Your task to perform on an android device: Add "bose soundsport free" to the cart on ebay, then select checkout. Image 0: 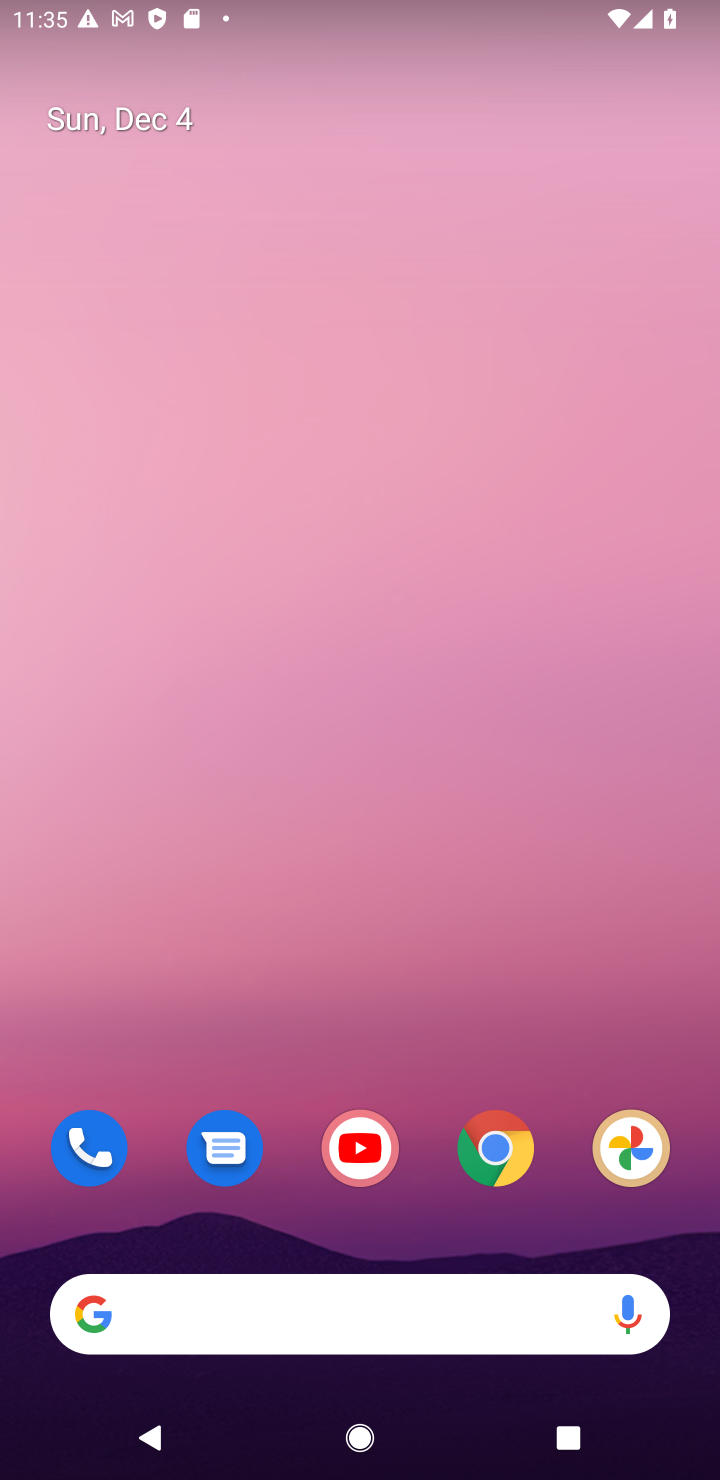
Step 0: drag from (414, 1185) to (417, 581)
Your task to perform on an android device: Add "bose soundsport free" to the cart on ebay, then select checkout. Image 1: 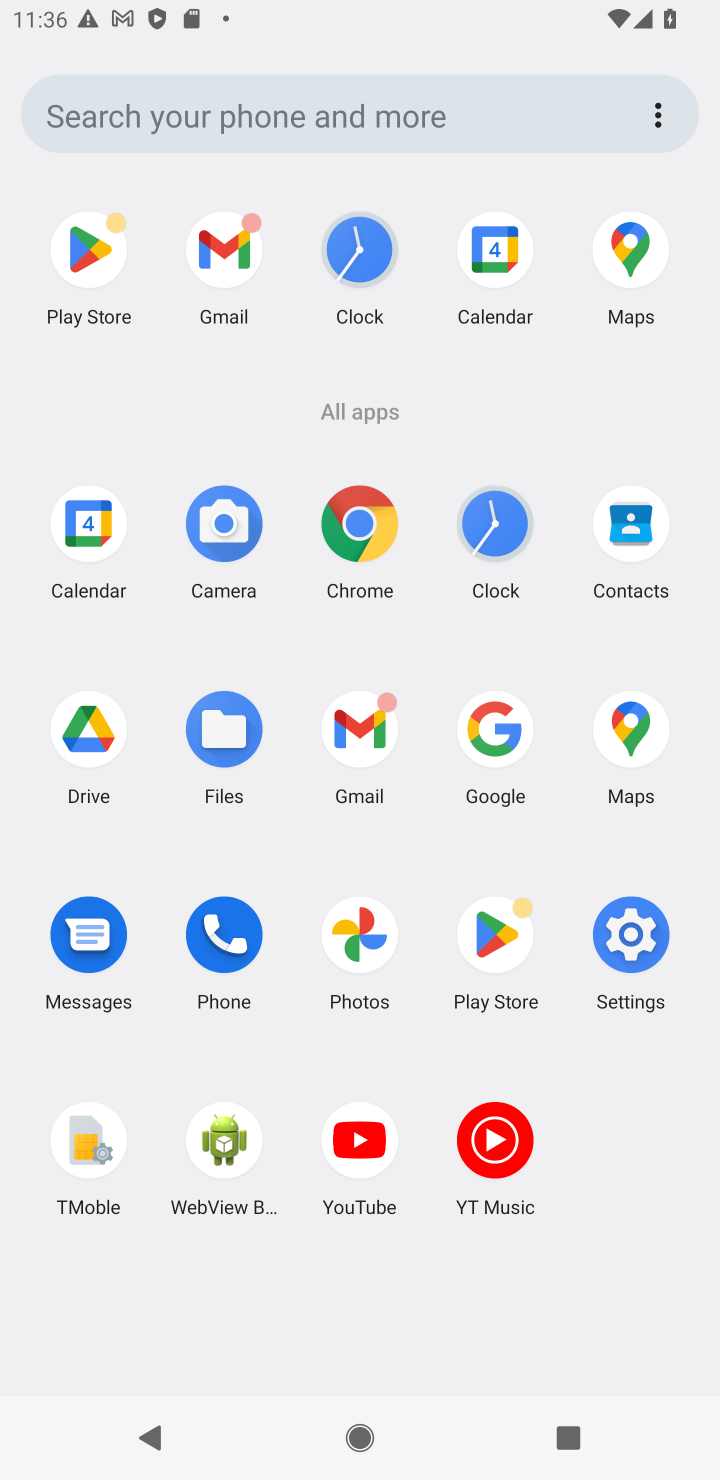
Step 1: click (501, 733)
Your task to perform on an android device: Add "bose soundsport free" to the cart on ebay, then select checkout. Image 2: 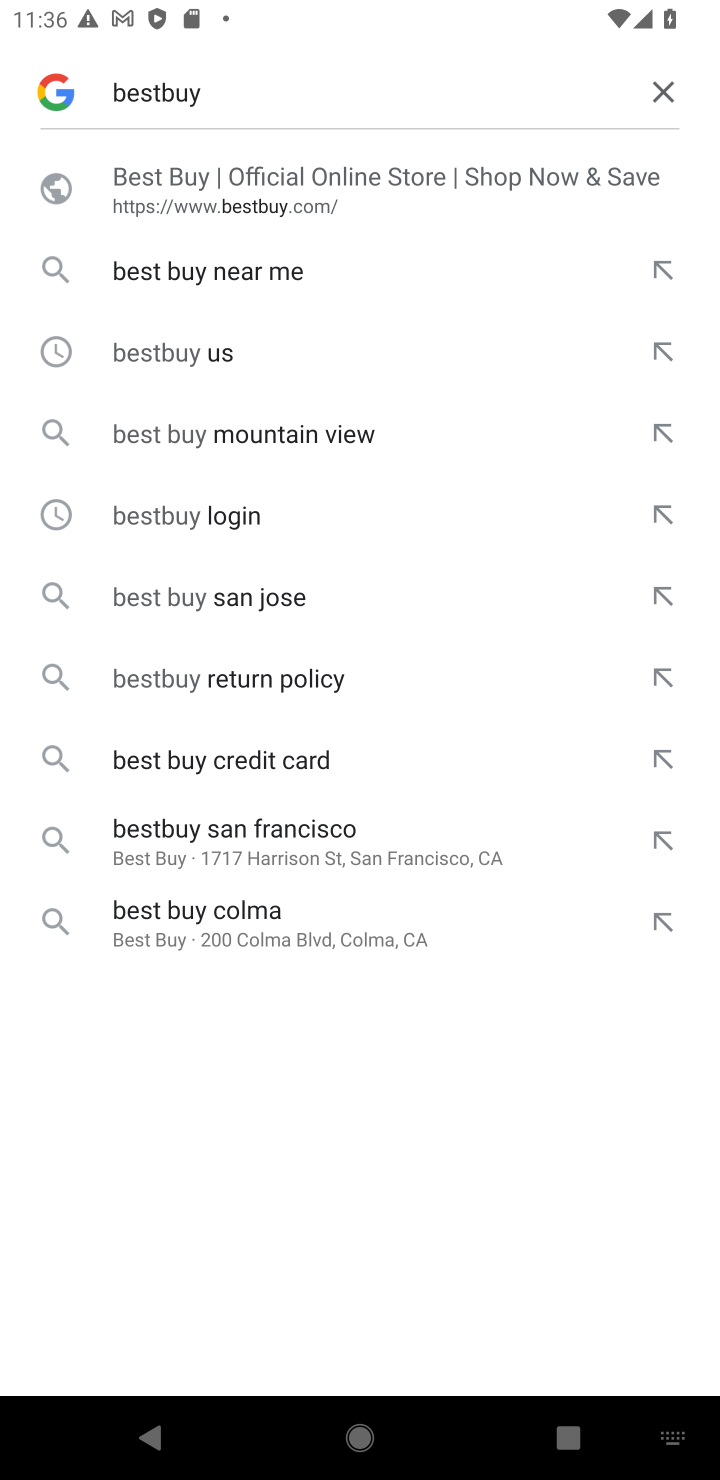
Step 2: click (169, 96)
Your task to perform on an android device: Add "bose soundsport free" to the cart on ebay, then select checkout. Image 3: 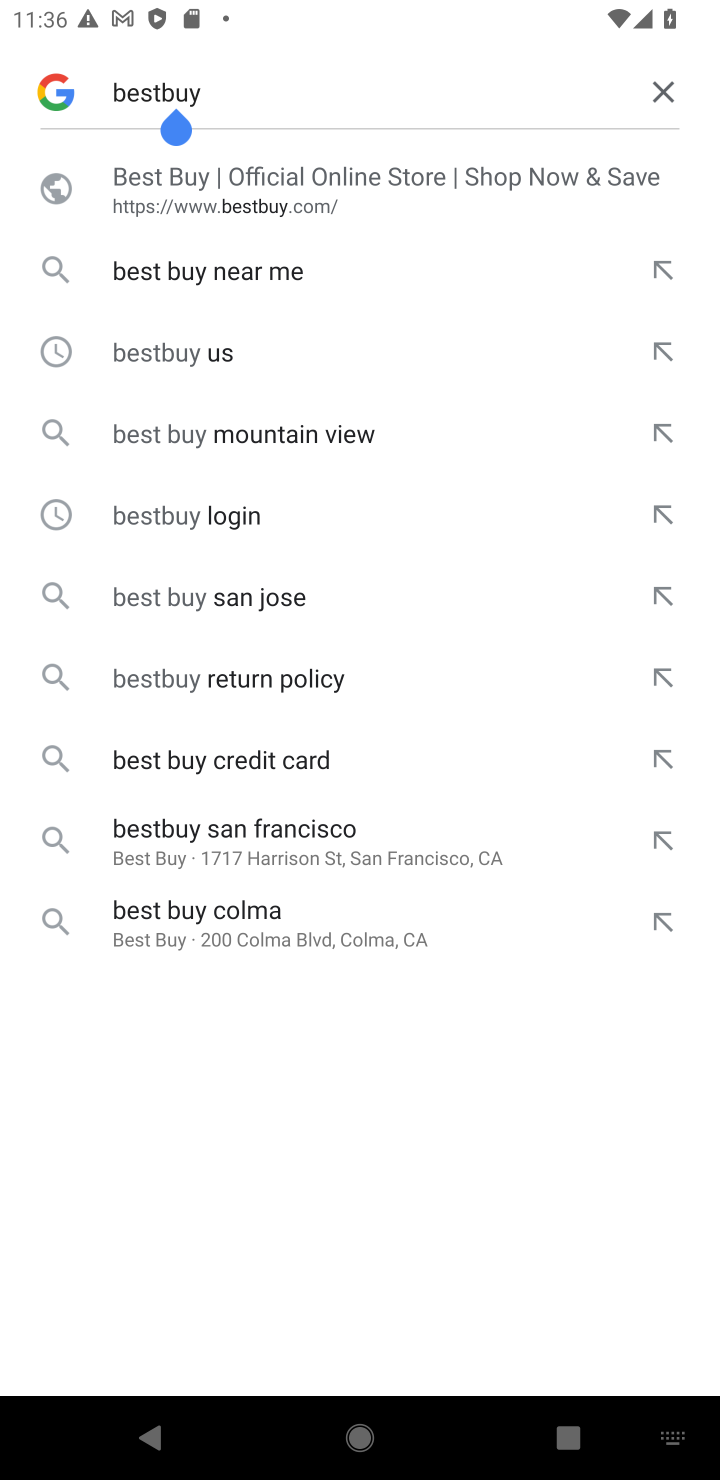
Step 3: click (662, 97)
Your task to perform on an android device: Add "bose soundsport free" to the cart on ebay, then select checkout. Image 4: 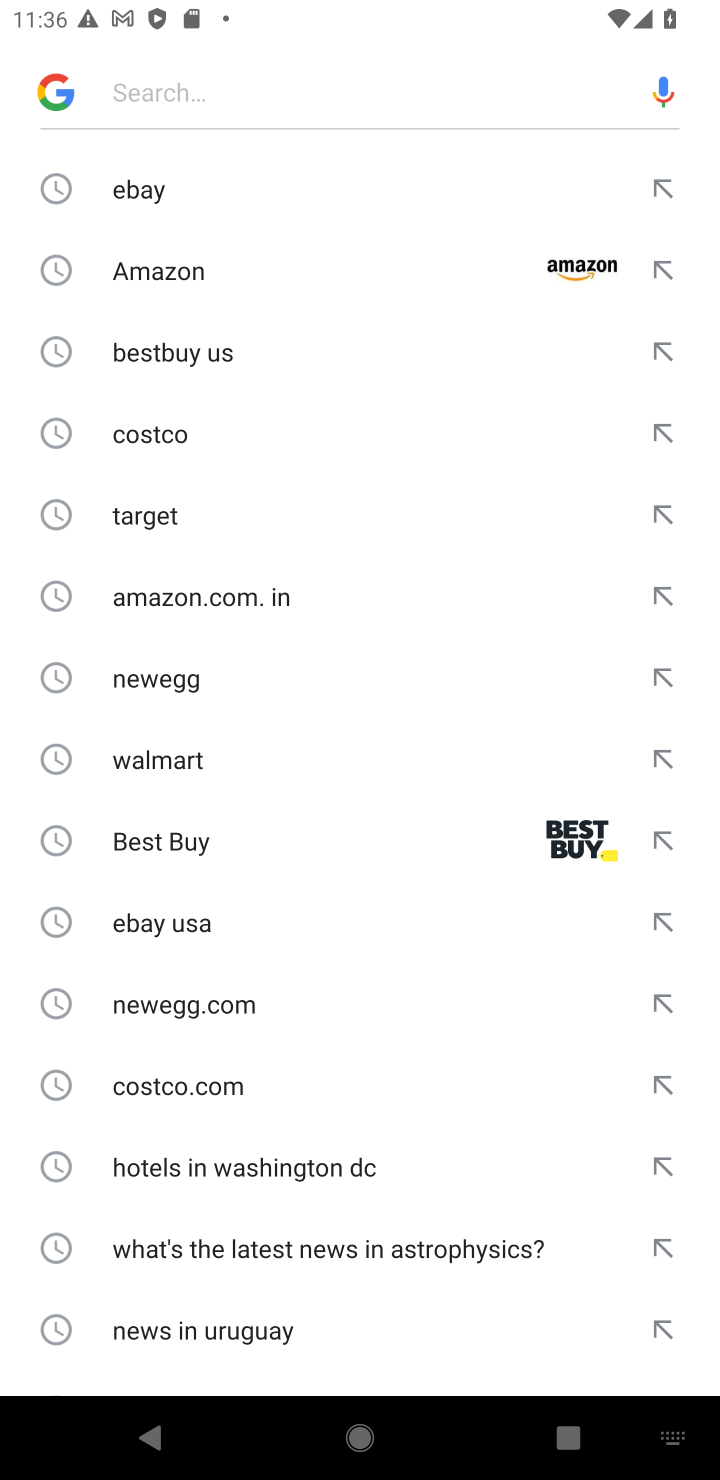
Step 4: click (149, 192)
Your task to perform on an android device: Add "bose soundsport free" to the cart on ebay, then select checkout. Image 5: 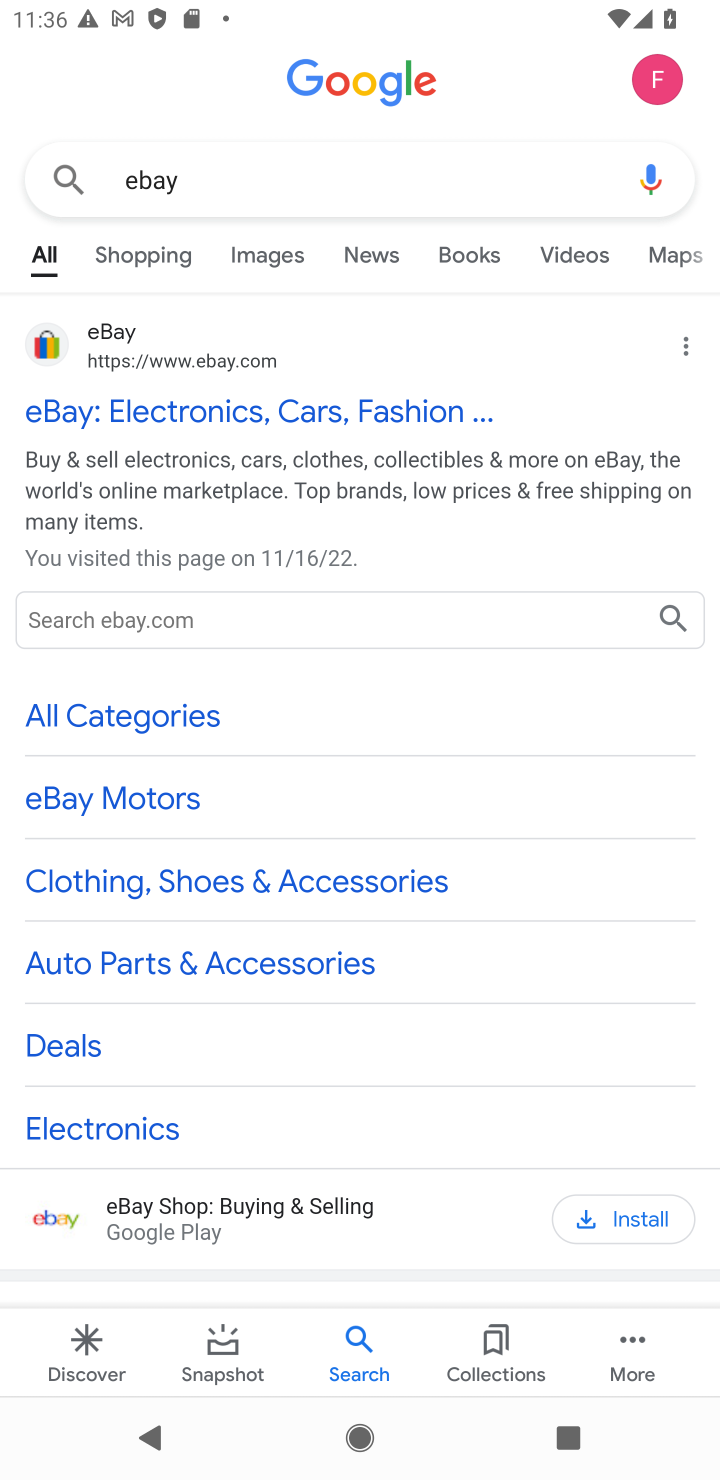
Step 5: click (225, 424)
Your task to perform on an android device: Add "bose soundsport free" to the cart on ebay, then select checkout. Image 6: 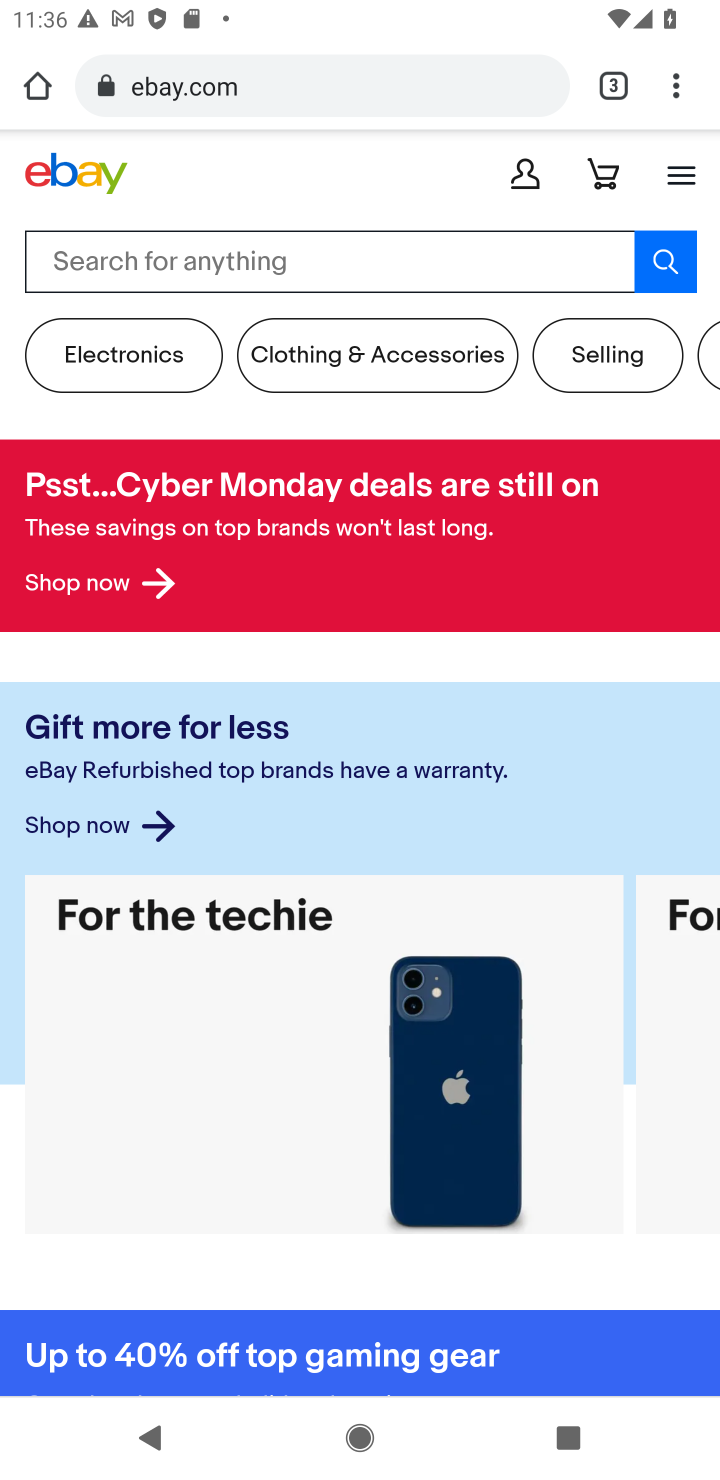
Step 6: click (250, 255)
Your task to perform on an android device: Add "bose soundsport free" to the cart on ebay, then select checkout. Image 7: 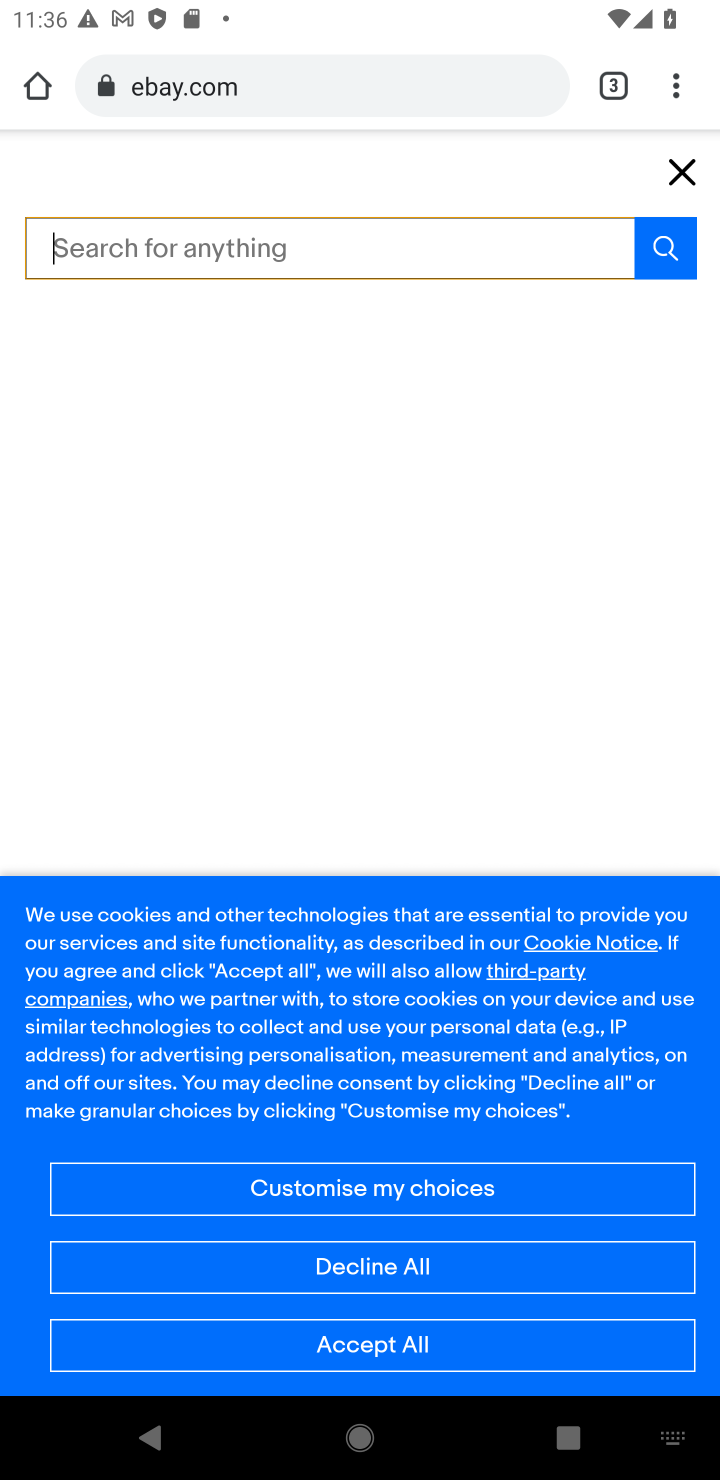
Step 7: type "bose soundsport free"
Your task to perform on an android device: Add "bose soundsport free" to the cart on ebay, then select checkout. Image 8: 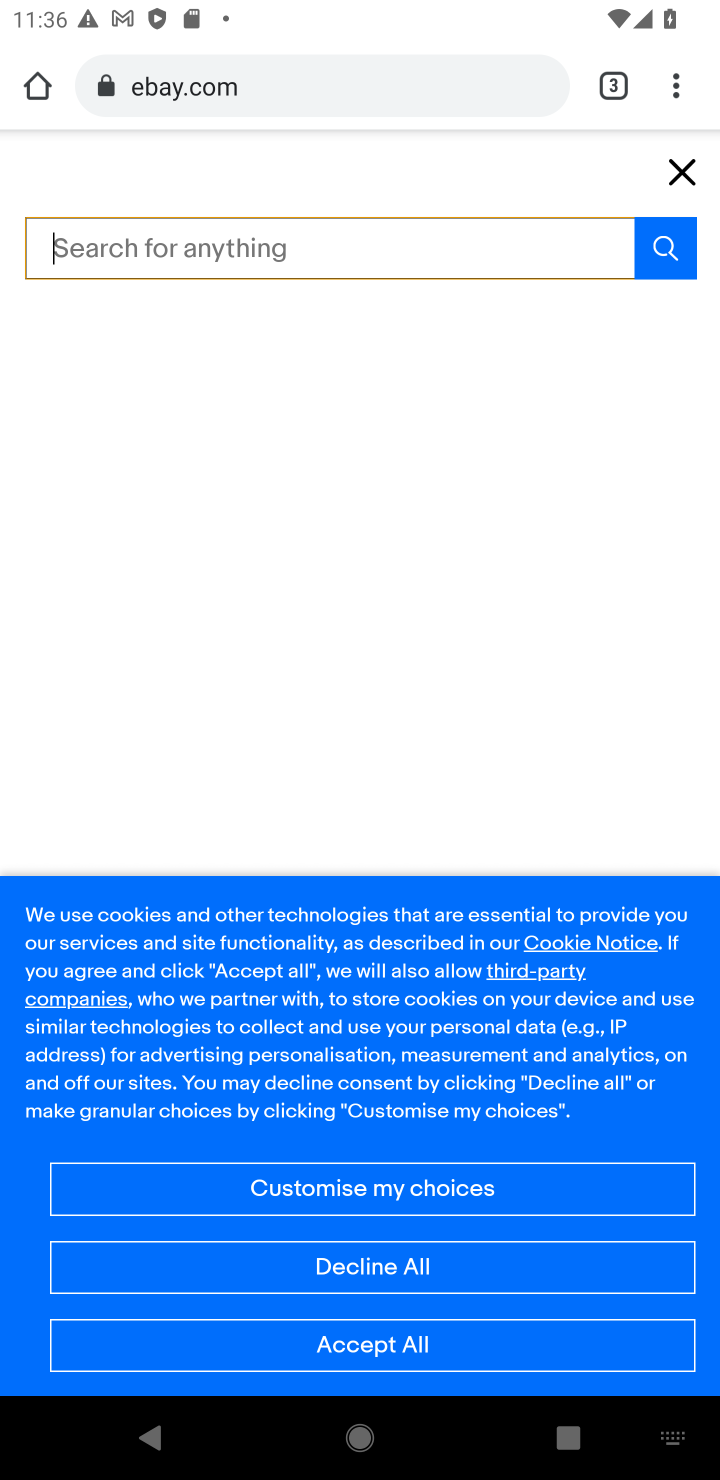
Step 8: click (667, 252)
Your task to perform on an android device: Add "bose soundsport free" to the cart on ebay, then select checkout. Image 9: 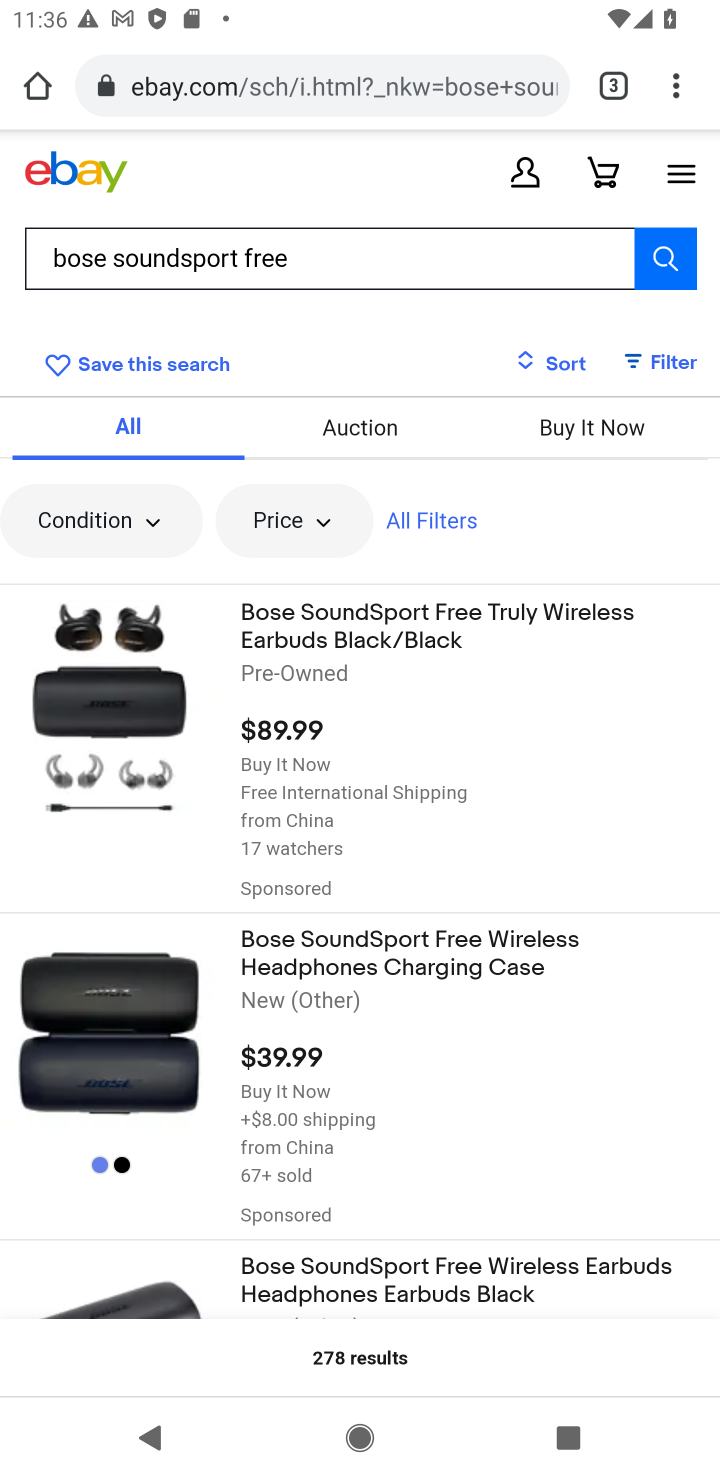
Step 9: click (316, 651)
Your task to perform on an android device: Add "bose soundsport free" to the cart on ebay, then select checkout. Image 10: 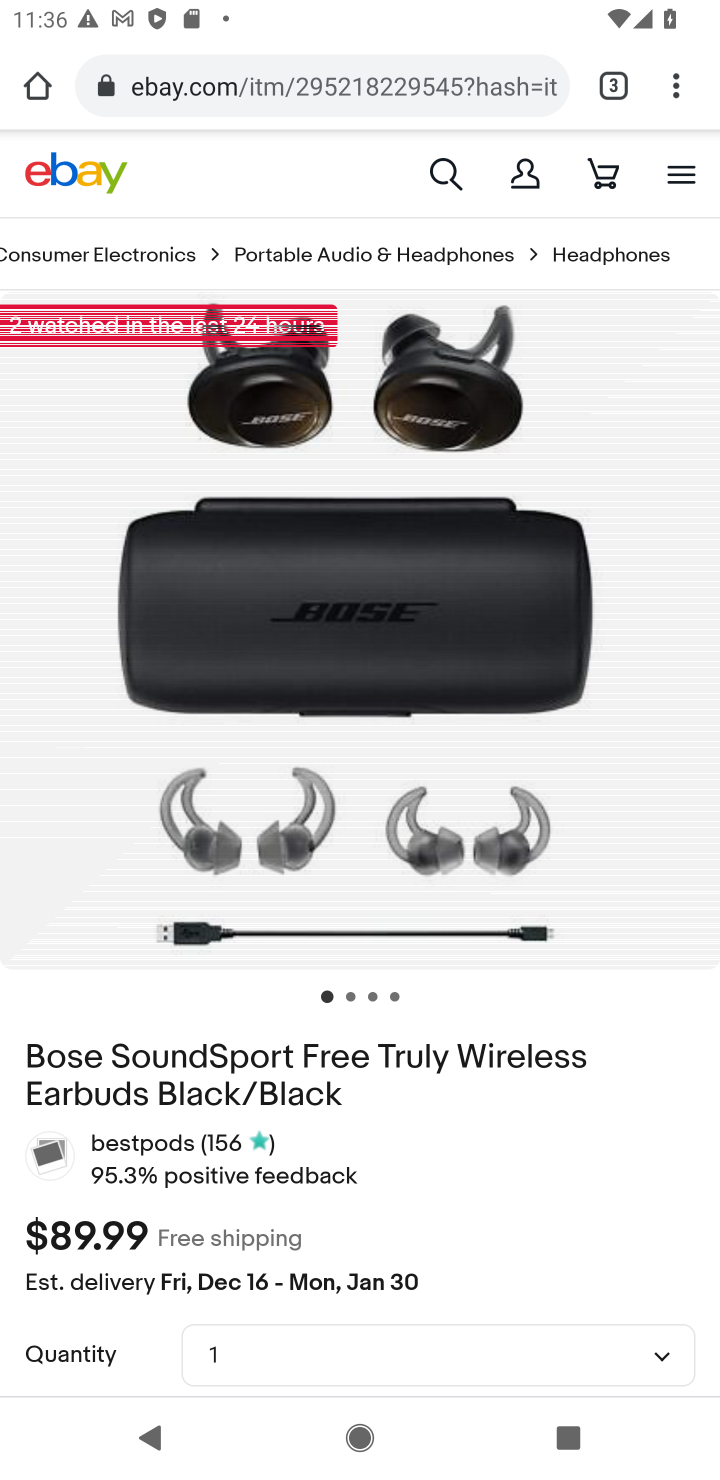
Step 10: drag from (424, 1012) to (417, 554)
Your task to perform on an android device: Add "bose soundsport free" to the cart on ebay, then select checkout. Image 11: 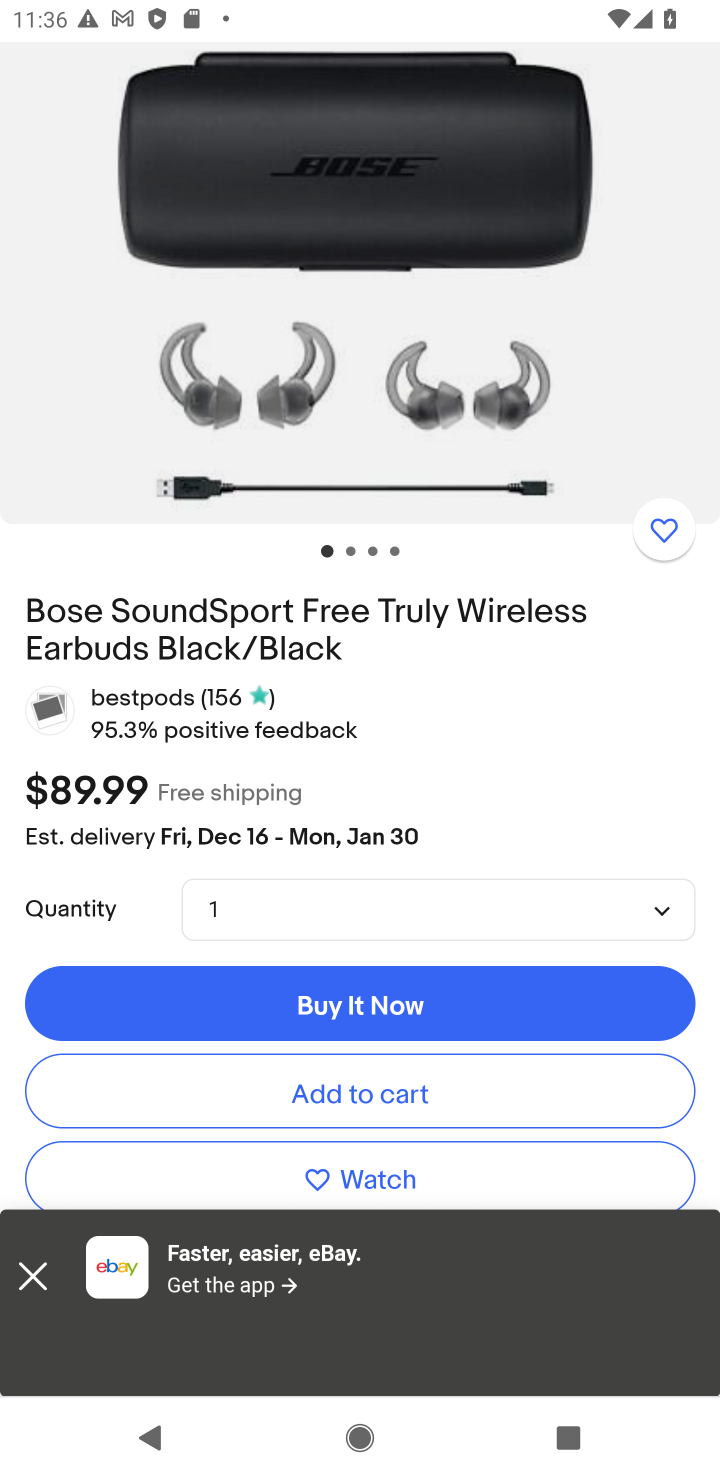
Step 11: click (402, 1103)
Your task to perform on an android device: Add "bose soundsport free" to the cart on ebay, then select checkout. Image 12: 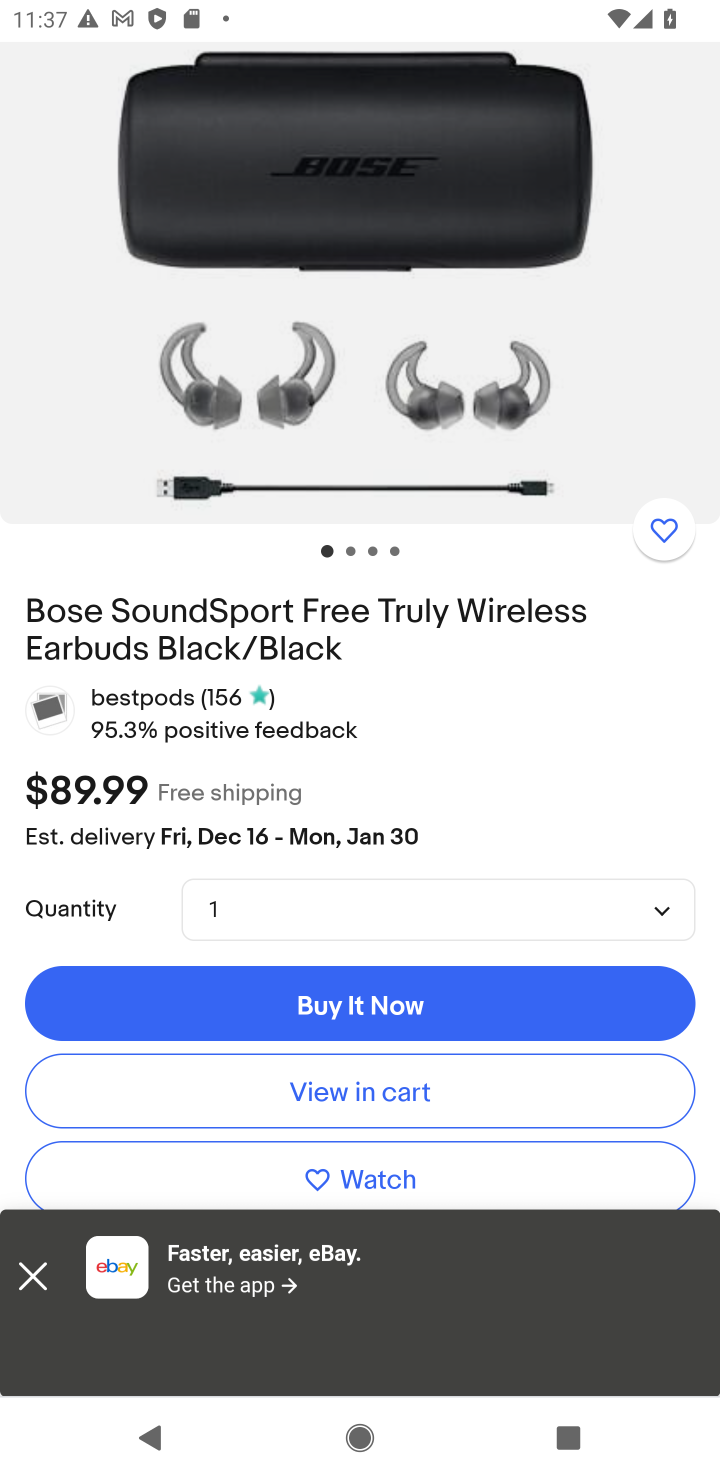
Step 12: click (405, 1094)
Your task to perform on an android device: Add "bose soundsport free" to the cart on ebay, then select checkout. Image 13: 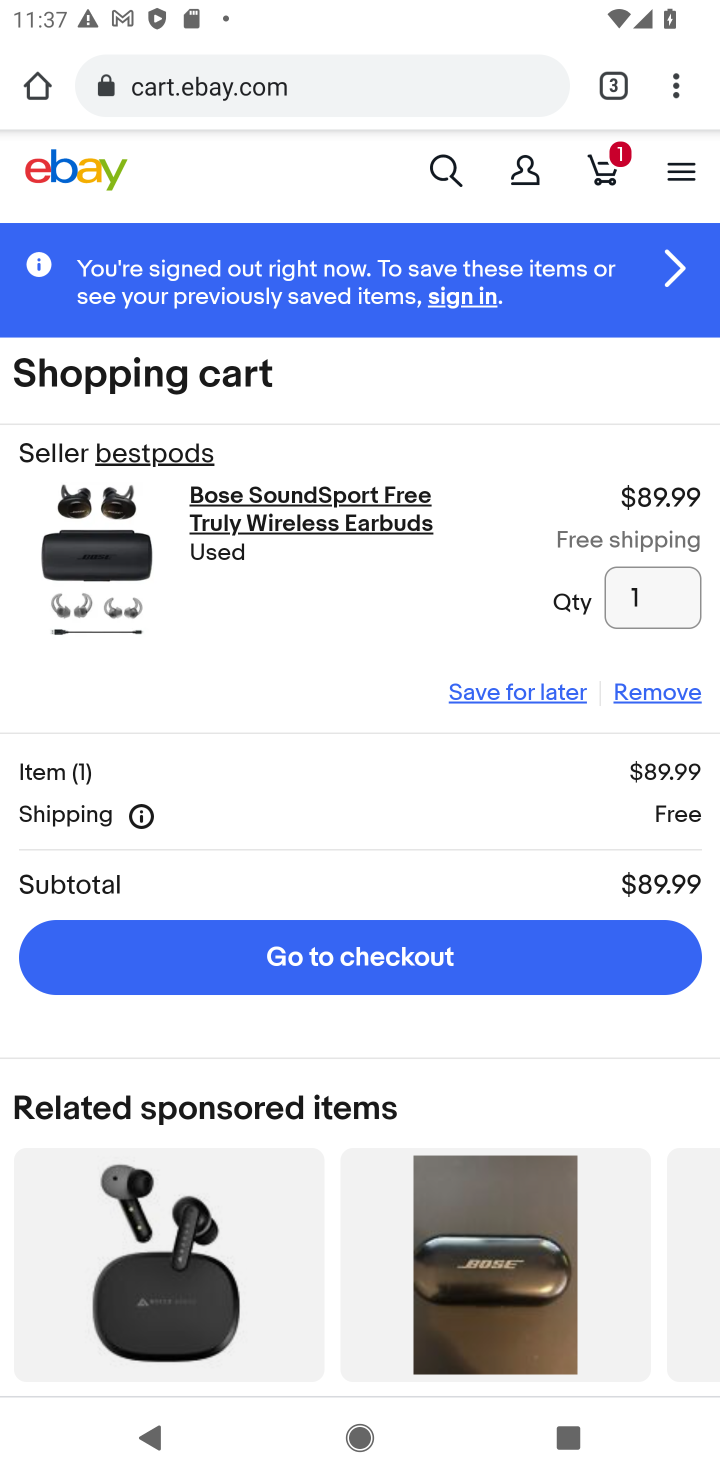
Step 13: click (457, 975)
Your task to perform on an android device: Add "bose soundsport free" to the cart on ebay, then select checkout. Image 14: 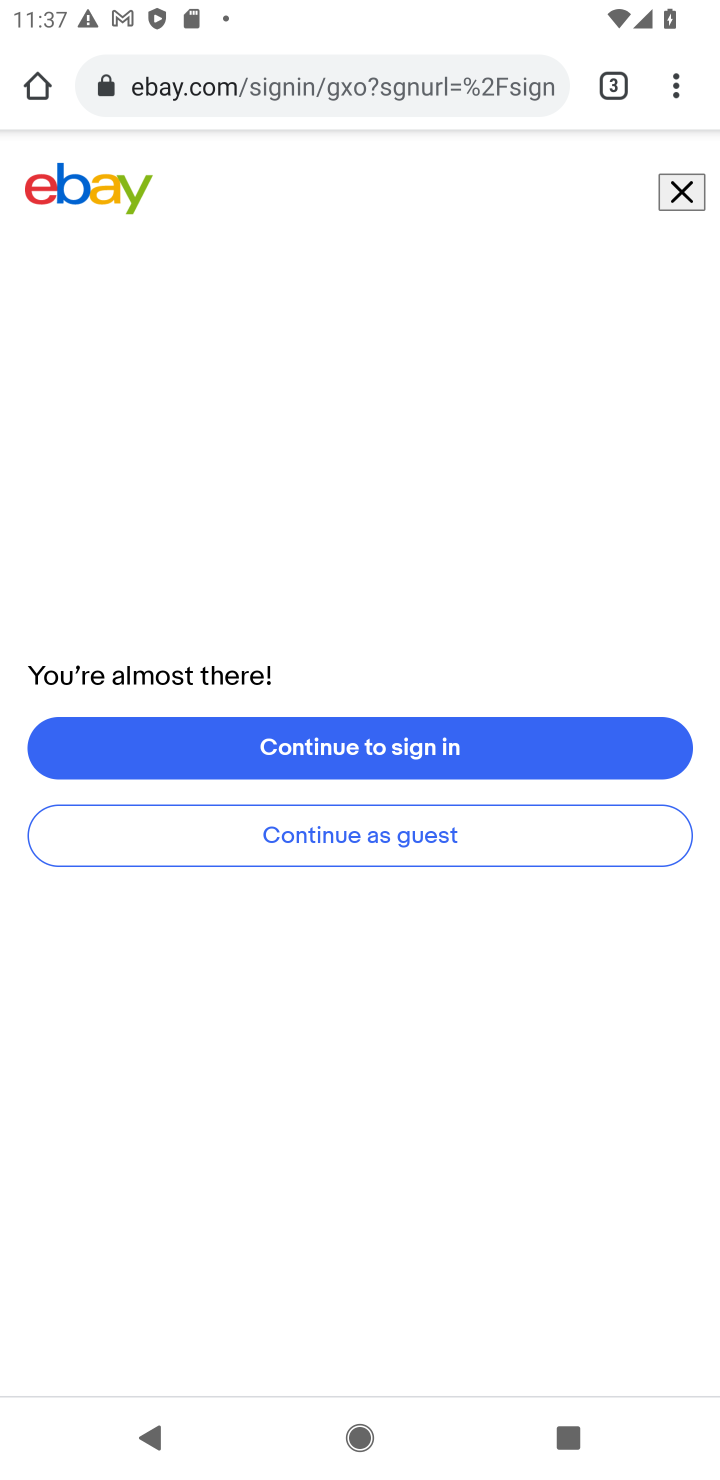
Step 14: task complete